Your task to perform on an android device: Search for Italian restaurants on Maps Image 0: 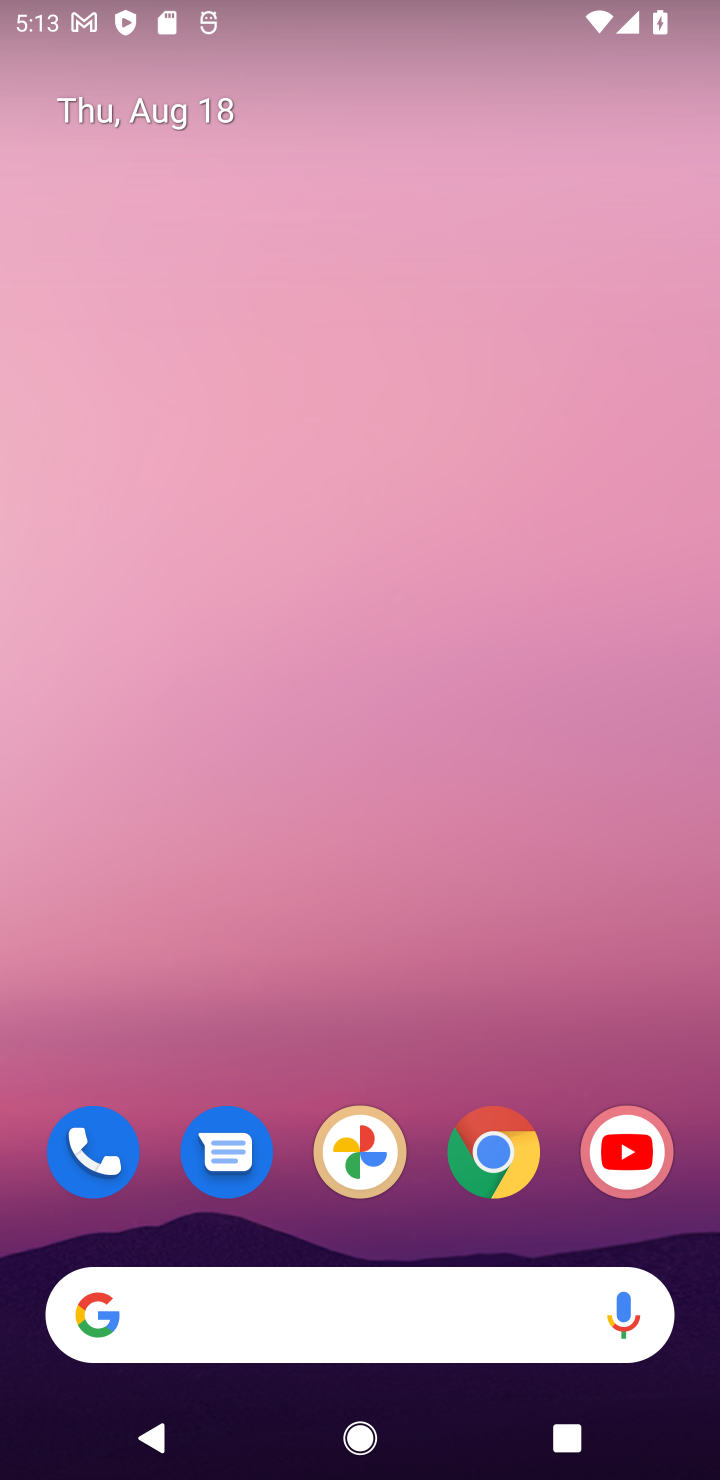
Step 0: drag from (296, 1217) to (444, 106)
Your task to perform on an android device: Search for Italian restaurants on Maps Image 1: 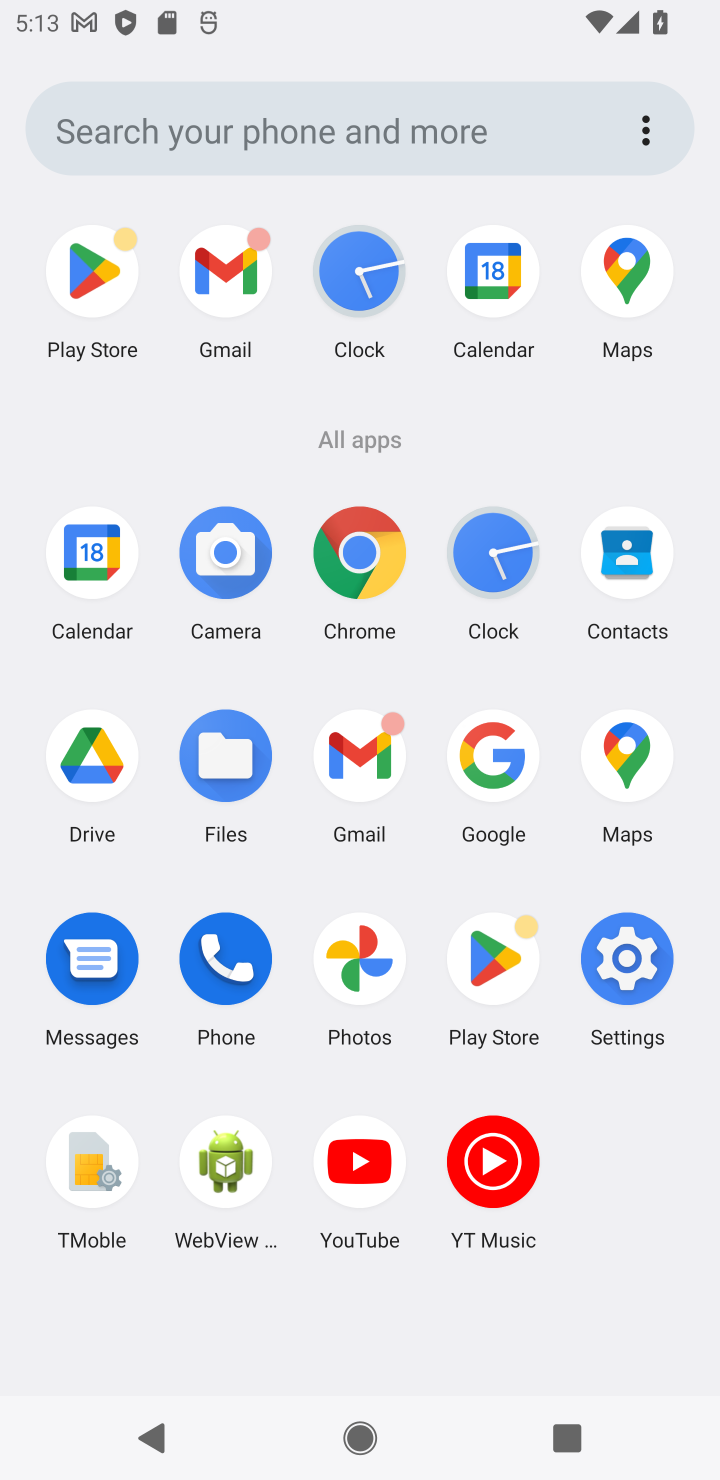
Step 1: click (620, 766)
Your task to perform on an android device: Search for Italian restaurants on Maps Image 2: 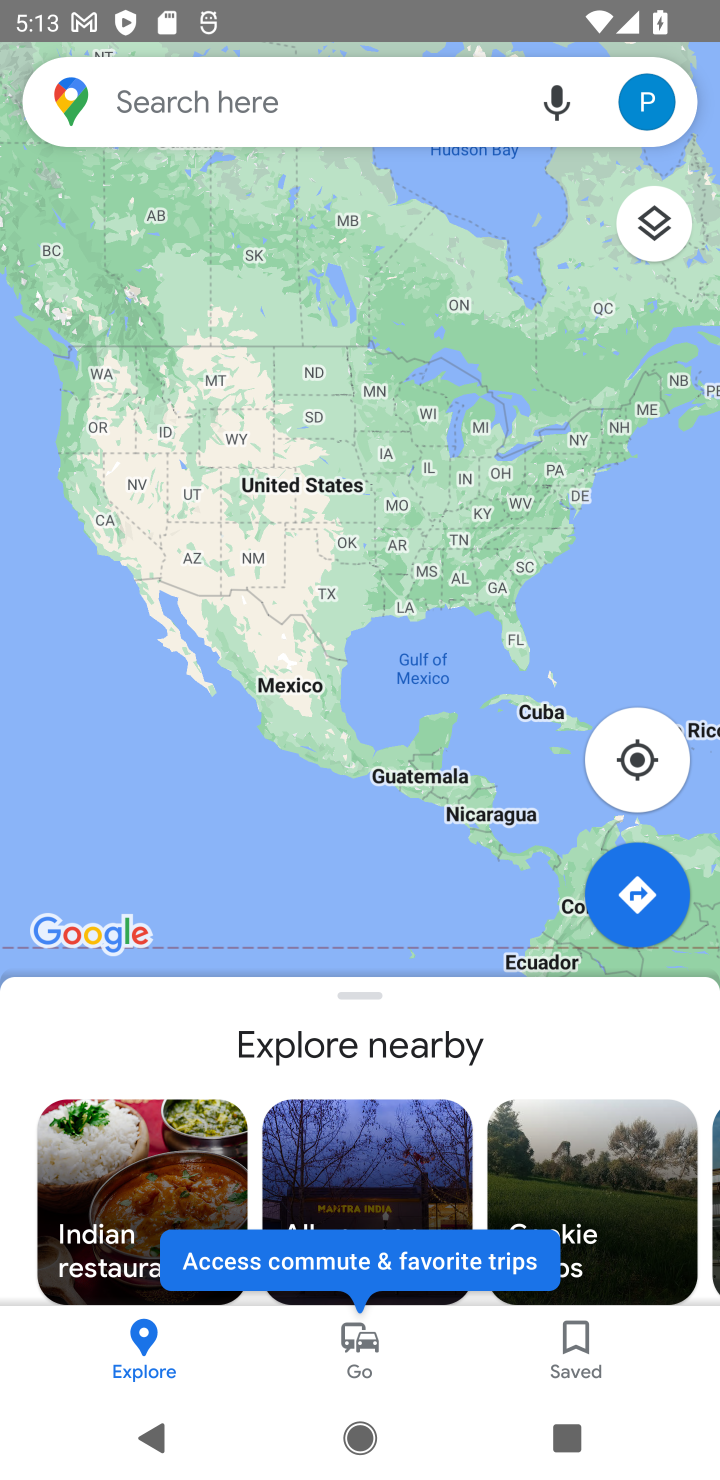
Step 2: click (363, 104)
Your task to perform on an android device: Search for Italian restaurants on Maps Image 3: 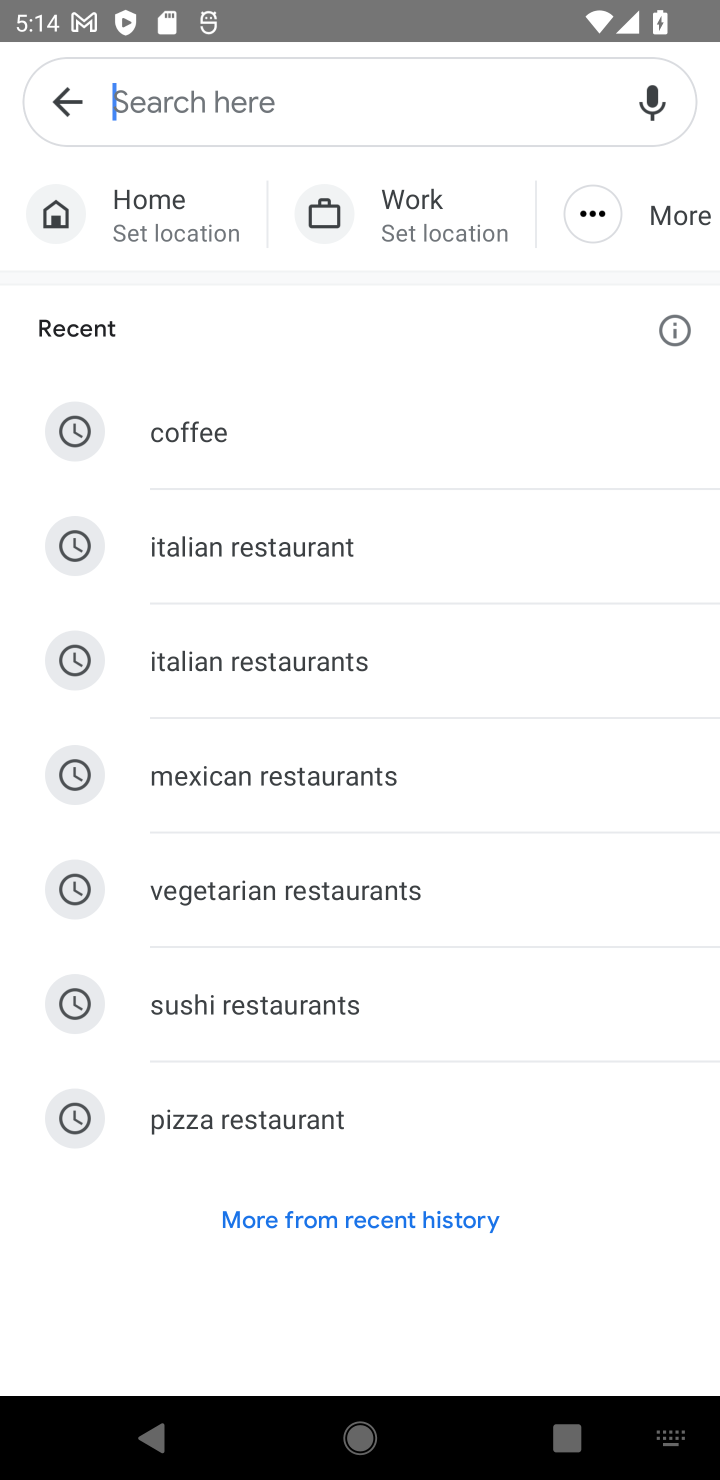
Step 3: click (311, 678)
Your task to perform on an android device: Search for Italian restaurants on Maps Image 4: 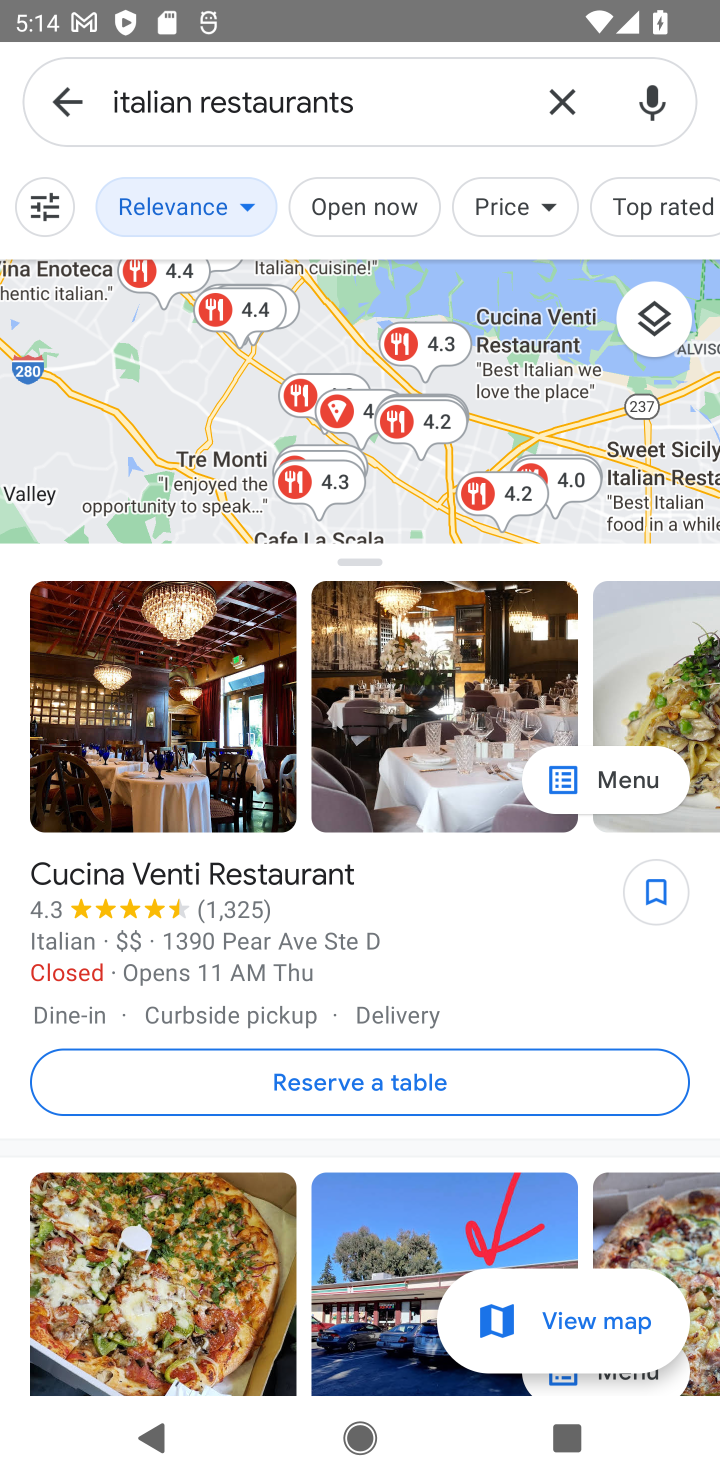
Step 4: task complete